Your task to perform on an android device: turn off data saver in the chrome app Image 0: 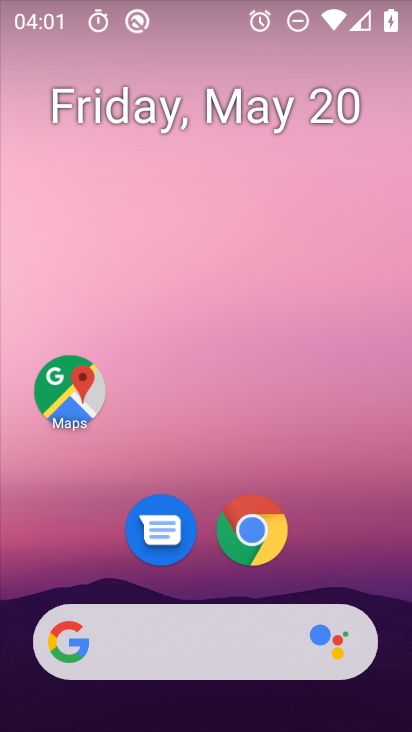
Step 0: click (251, 534)
Your task to perform on an android device: turn off data saver in the chrome app Image 1: 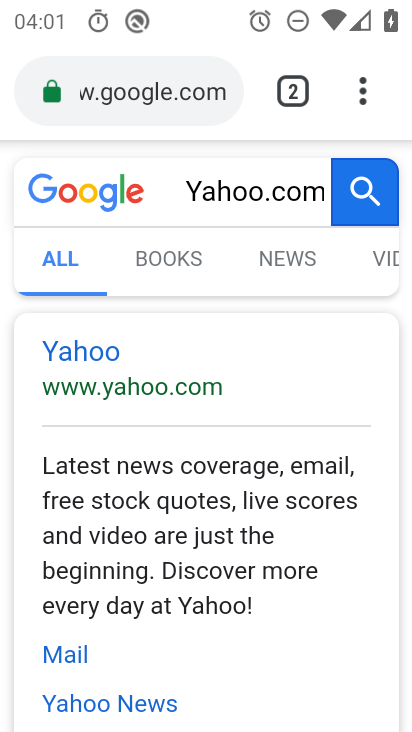
Step 1: click (362, 96)
Your task to perform on an android device: turn off data saver in the chrome app Image 2: 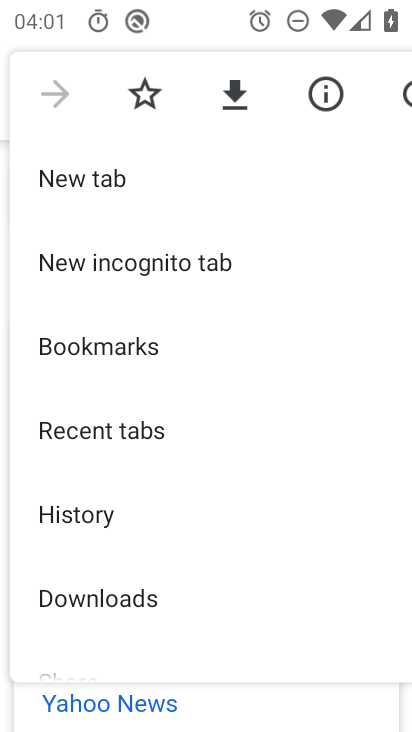
Step 2: drag from (264, 655) to (282, 446)
Your task to perform on an android device: turn off data saver in the chrome app Image 3: 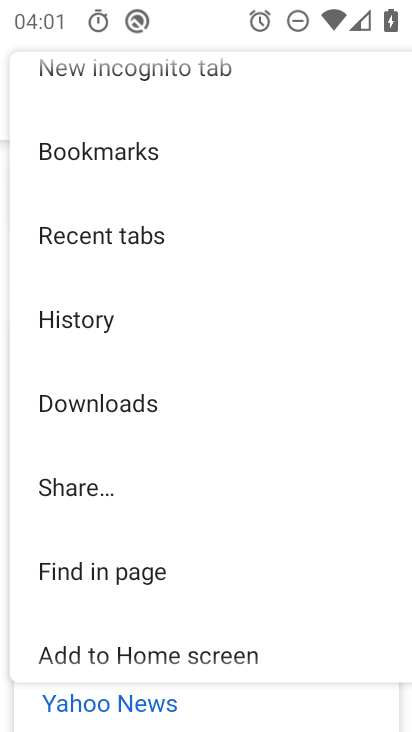
Step 3: drag from (311, 660) to (293, 400)
Your task to perform on an android device: turn off data saver in the chrome app Image 4: 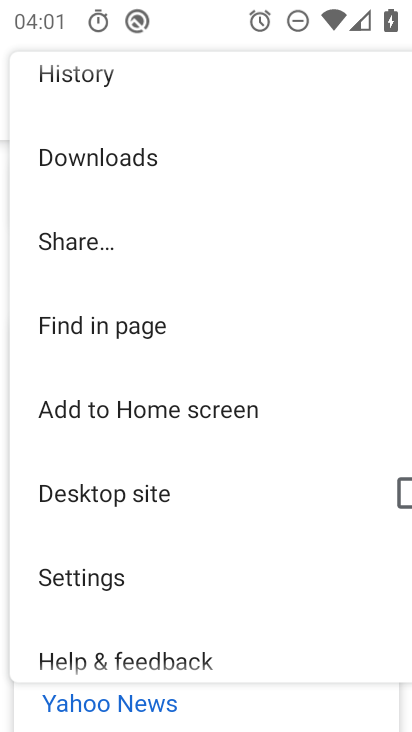
Step 4: drag from (267, 638) to (262, 403)
Your task to perform on an android device: turn off data saver in the chrome app Image 5: 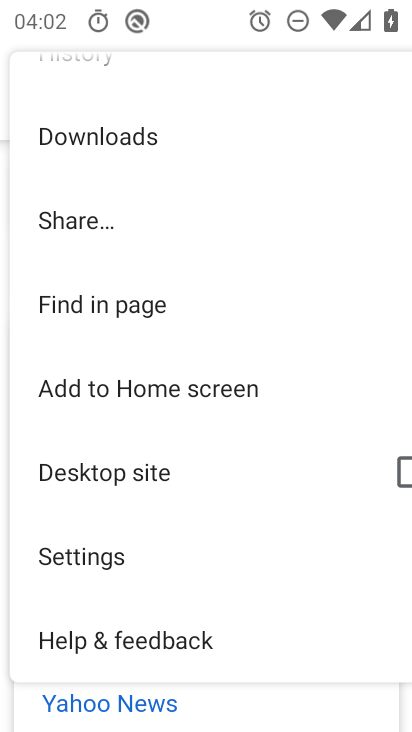
Step 5: click (91, 561)
Your task to perform on an android device: turn off data saver in the chrome app Image 6: 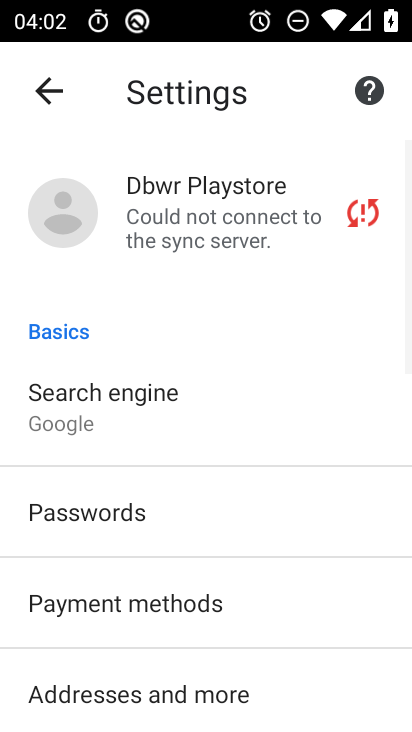
Step 6: drag from (295, 682) to (293, 363)
Your task to perform on an android device: turn off data saver in the chrome app Image 7: 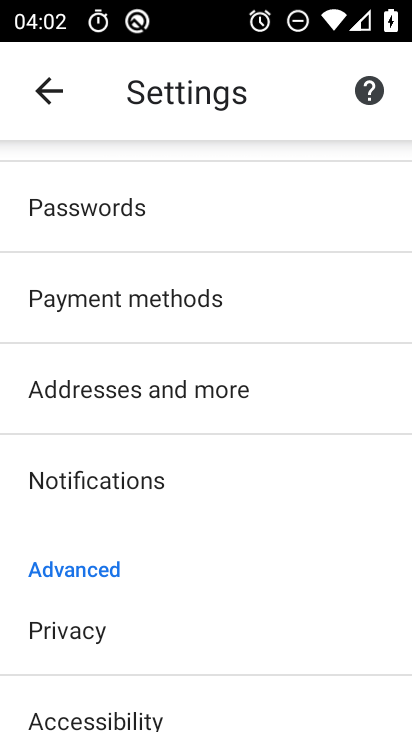
Step 7: drag from (248, 688) to (257, 451)
Your task to perform on an android device: turn off data saver in the chrome app Image 8: 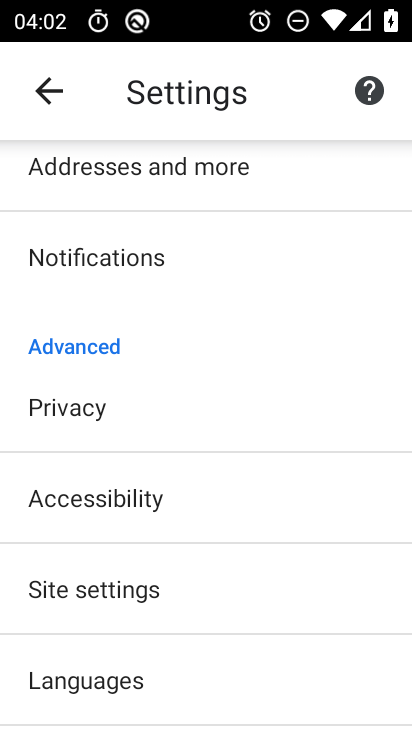
Step 8: drag from (249, 643) to (255, 518)
Your task to perform on an android device: turn off data saver in the chrome app Image 9: 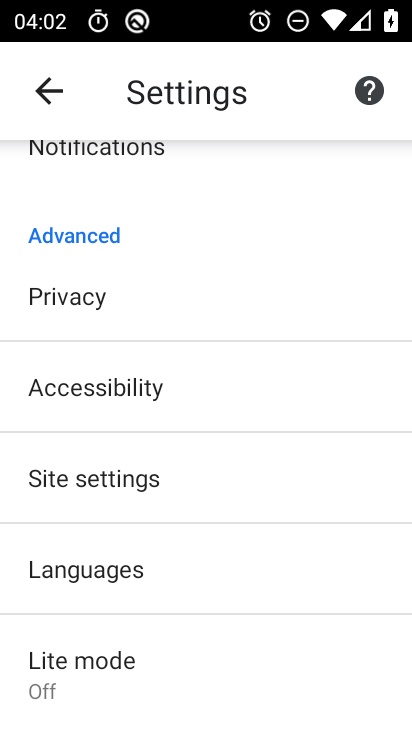
Step 9: click (92, 666)
Your task to perform on an android device: turn off data saver in the chrome app Image 10: 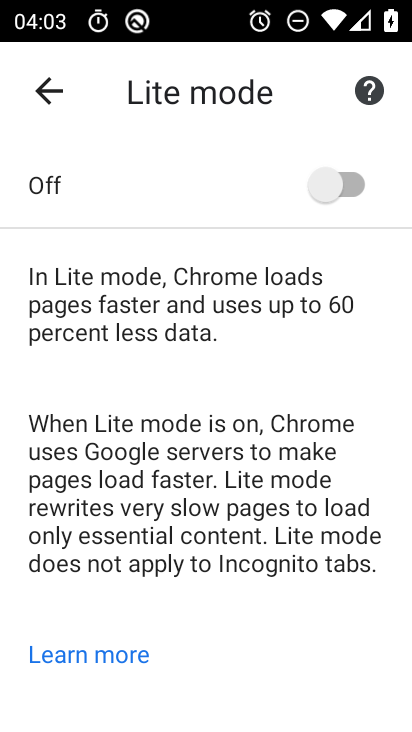
Step 10: task complete